Your task to perform on an android device: Do I have any events this weekend? Image 0: 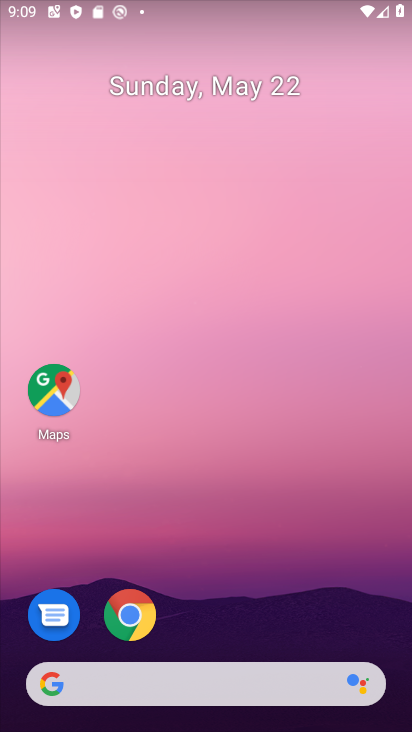
Step 0: drag from (286, 580) to (283, 256)
Your task to perform on an android device: Do I have any events this weekend? Image 1: 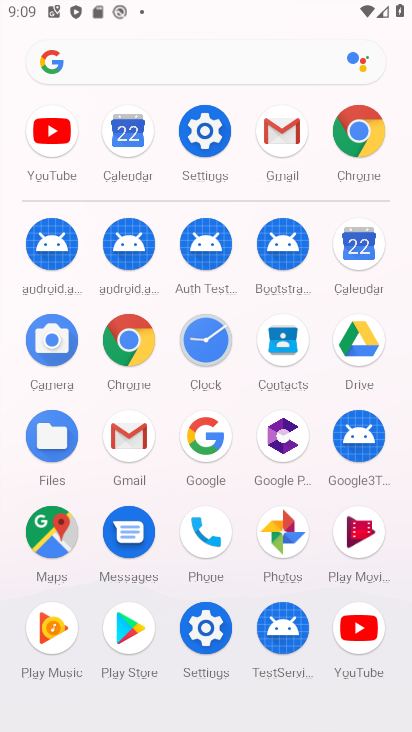
Step 1: click (354, 239)
Your task to perform on an android device: Do I have any events this weekend? Image 2: 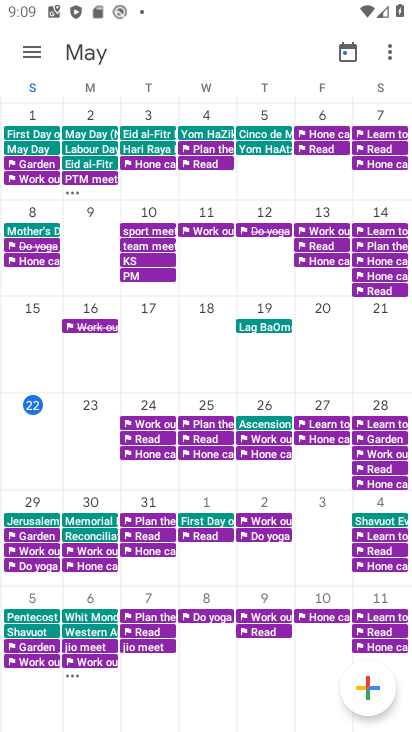
Step 2: click (45, 46)
Your task to perform on an android device: Do I have any events this weekend? Image 3: 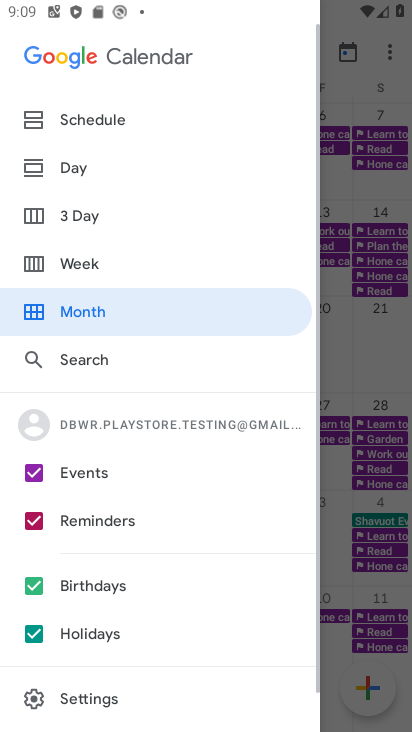
Step 3: click (85, 259)
Your task to perform on an android device: Do I have any events this weekend? Image 4: 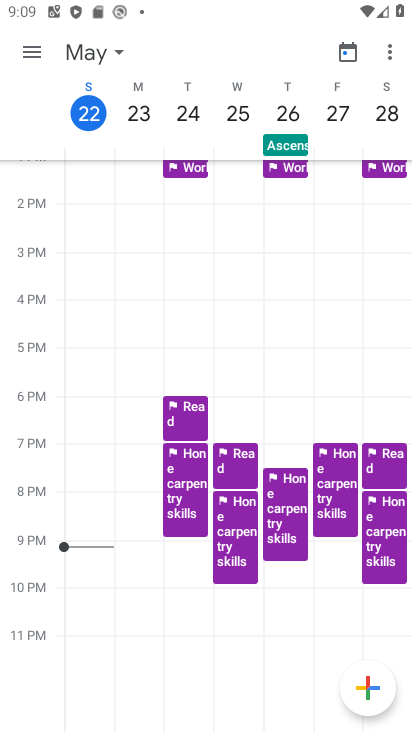
Step 4: task complete